Your task to perform on an android device: Go to Android settings Image 0: 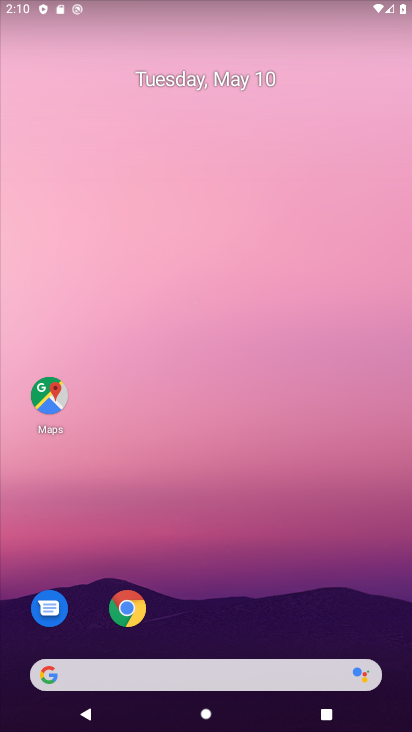
Step 0: drag from (391, 667) to (350, 101)
Your task to perform on an android device: Go to Android settings Image 1: 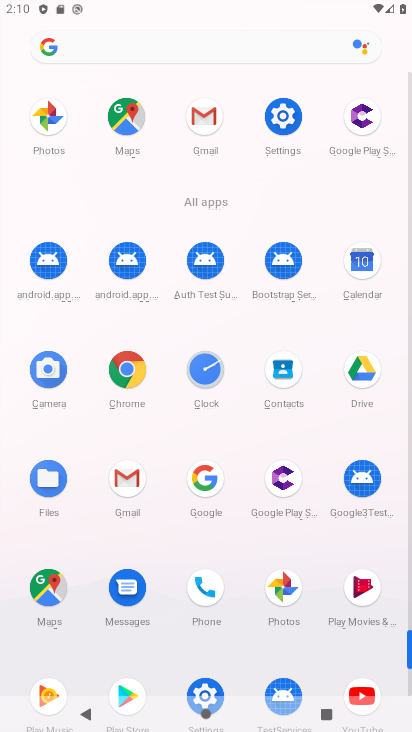
Step 1: click (409, 692)
Your task to perform on an android device: Go to Android settings Image 2: 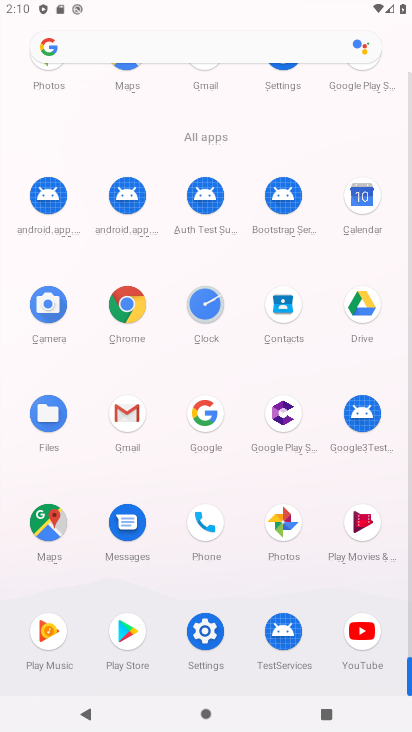
Step 2: click (204, 630)
Your task to perform on an android device: Go to Android settings Image 3: 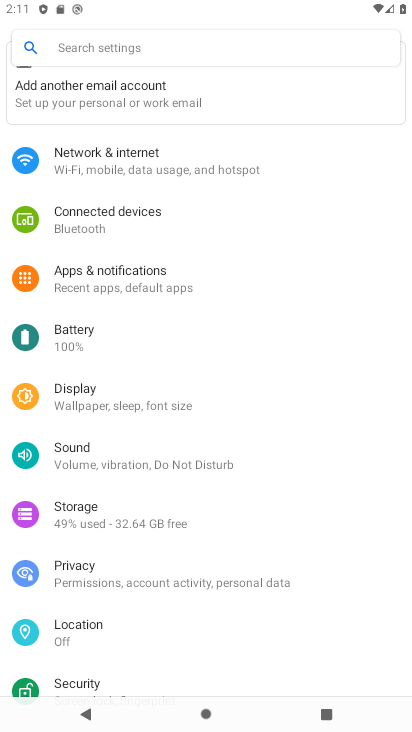
Step 3: drag from (317, 610) to (310, 235)
Your task to perform on an android device: Go to Android settings Image 4: 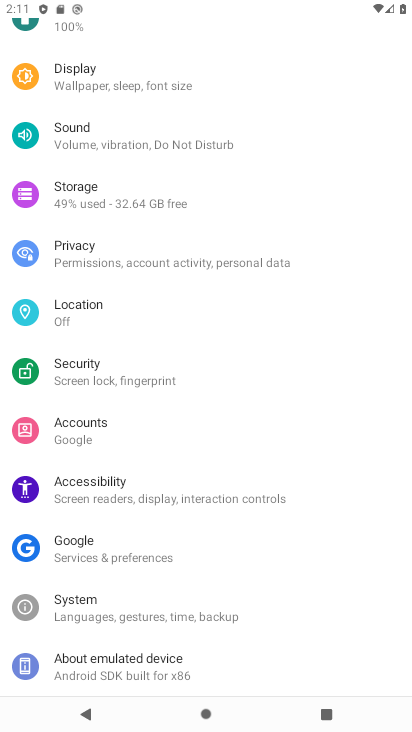
Step 4: click (93, 666)
Your task to perform on an android device: Go to Android settings Image 5: 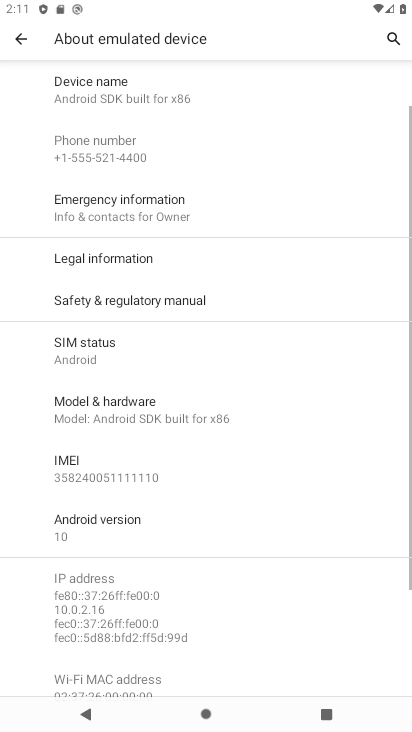
Step 5: task complete